Your task to perform on an android device: Open calendar and show me the third week of next month Image 0: 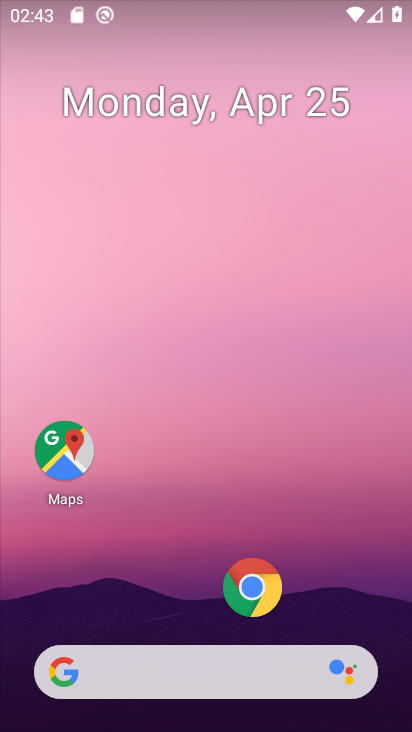
Step 0: drag from (196, 621) to (185, 78)
Your task to perform on an android device: Open calendar and show me the third week of next month Image 1: 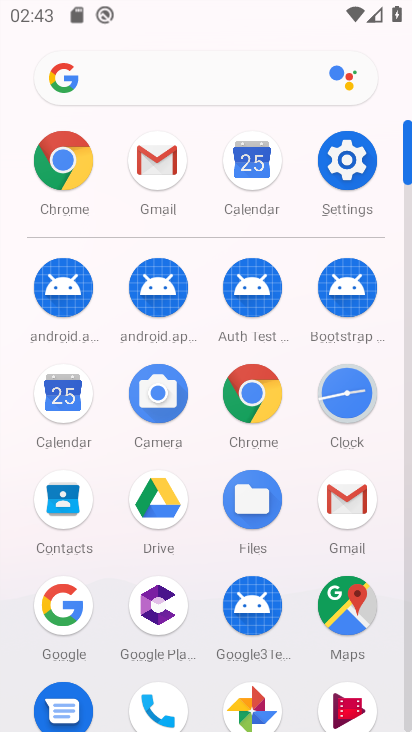
Step 1: click (64, 389)
Your task to perform on an android device: Open calendar and show me the third week of next month Image 2: 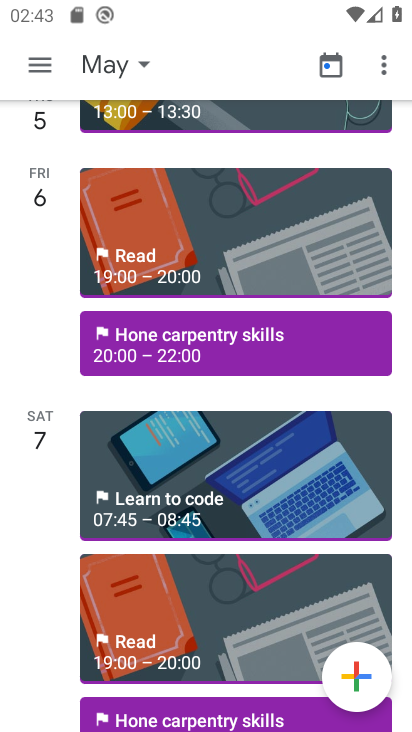
Step 2: click (42, 59)
Your task to perform on an android device: Open calendar and show me the third week of next month Image 3: 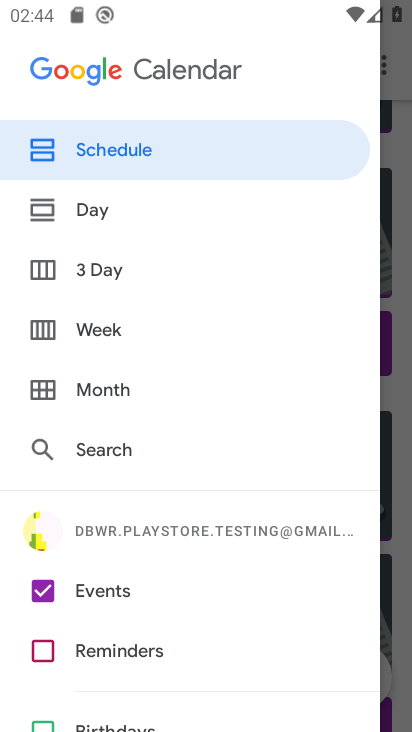
Step 3: click (65, 322)
Your task to perform on an android device: Open calendar and show me the third week of next month Image 4: 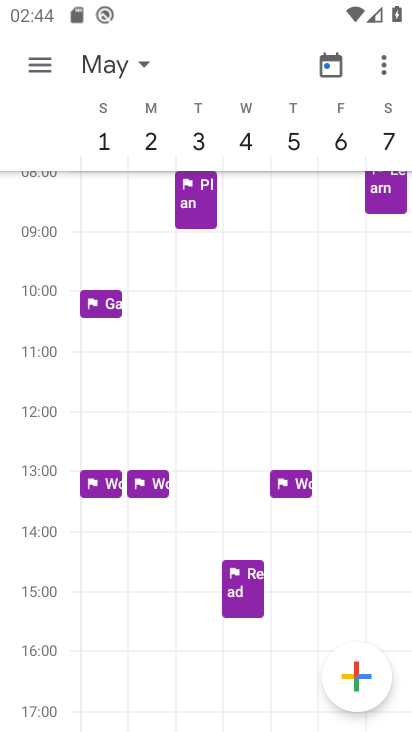
Step 4: drag from (389, 149) to (84, 141)
Your task to perform on an android device: Open calendar and show me the third week of next month Image 5: 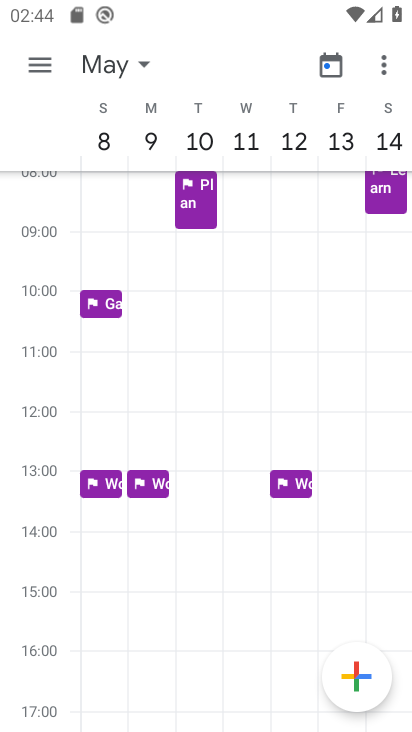
Step 5: drag from (389, 138) to (77, 143)
Your task to perform on an android device: Open calendar and show me the third week of next month Image 6: 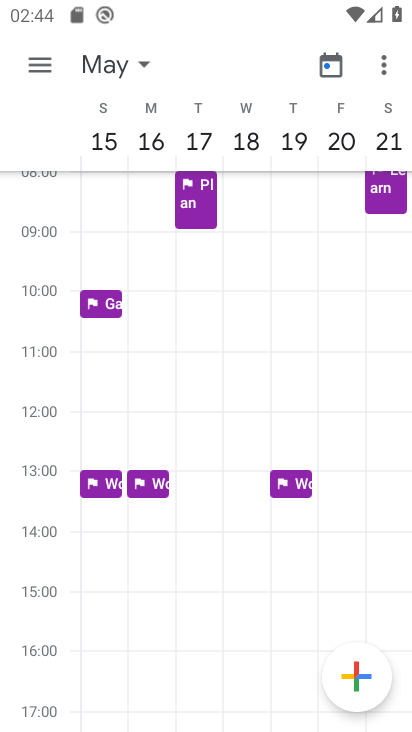
Step 6: click (105, 141)
Your task to perform on an android device: Open calendar and show me the third week of next month Image 7: 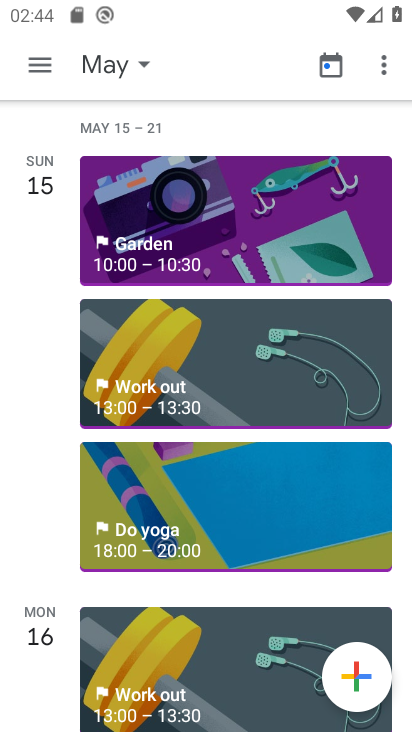
Step 7: click (55, 198)
Your task to perform on an android device: Open calendar and show me the third week of next month Image 8: 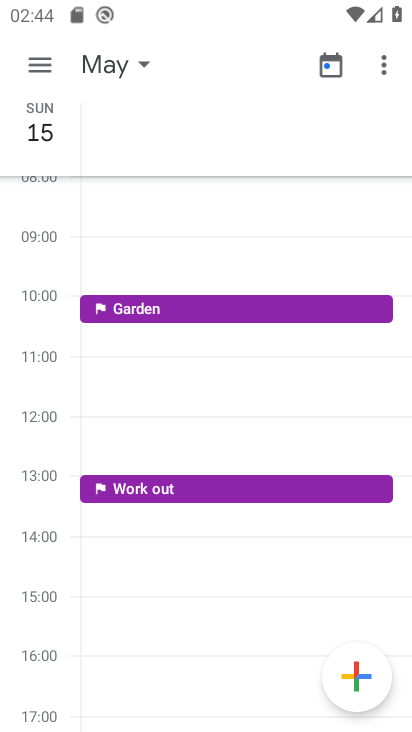
Step 8: click (57, 157)
Your task to perform on an android device: Open calendar and show me the third week of next month Image 9: 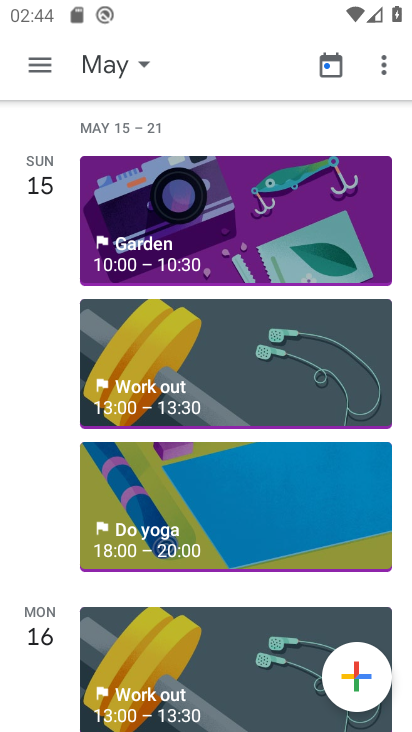
Step 9: task complete